Your task to perform on an android device: turn vacation reply on in the gmail app Image 0: 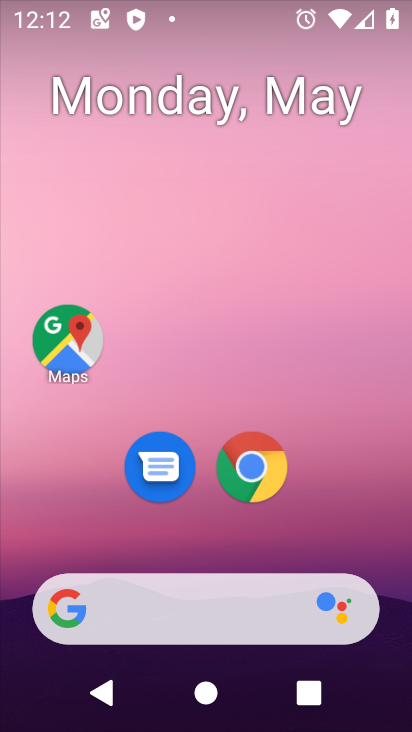
Step 0: drag from (406, 597) to (337, 42)
Your task to perform on an android device: turn vacation reply on in the gmail app Image 1: 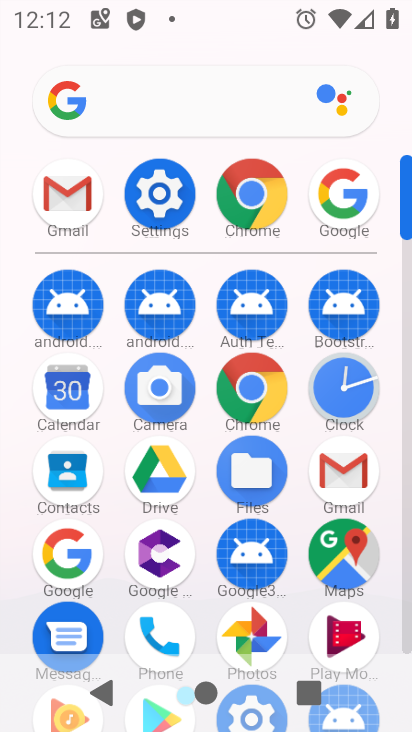
Step 1: click (342, 455)
Your task to perform on an android device: turn vacation reply on in the gmail app Image 2: 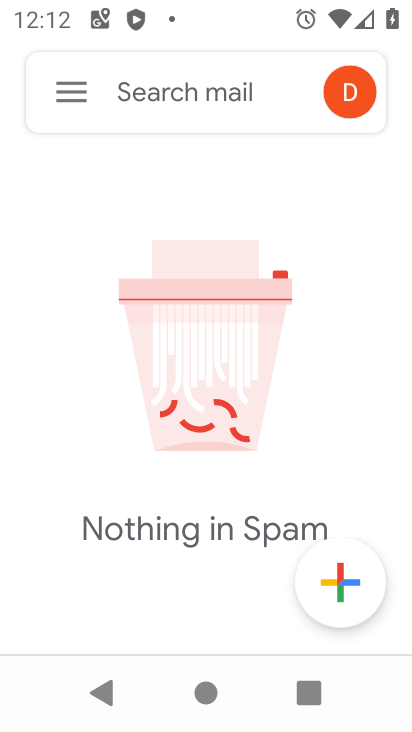
Step 2: click (48, 92)
Your task to perform on an android device: turn vacation reply on in the gmail app Image 3: 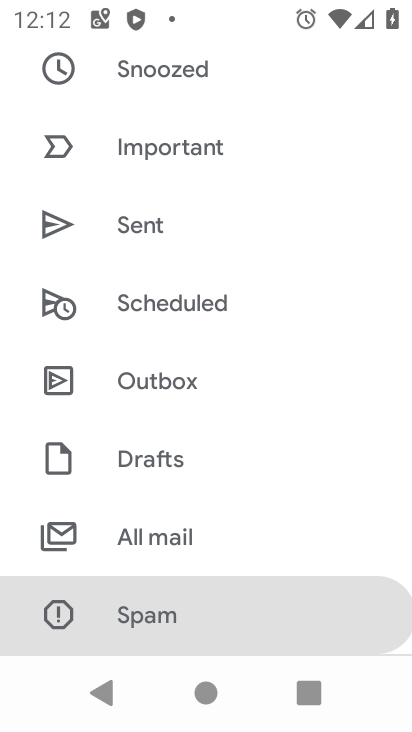
Step 3: drag from (144, 605) to (201, 63)
Your task to perform on an android device: turn vacation reply on in the gmail app Image 4: 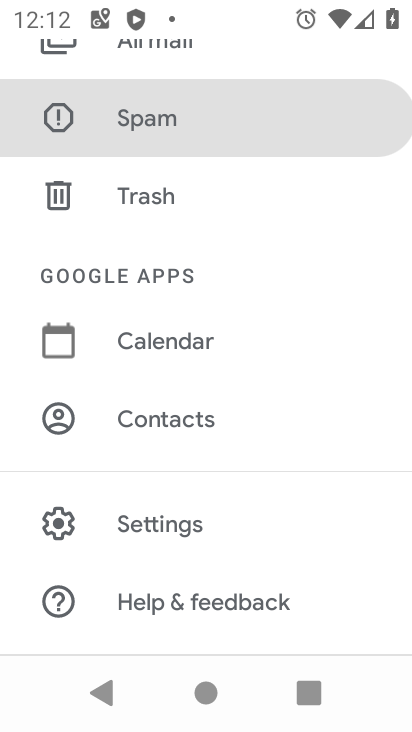
Step 4: click (196, 529)
Your task to perform on an android device: turn vacation reply on in the gmail app Image 5: 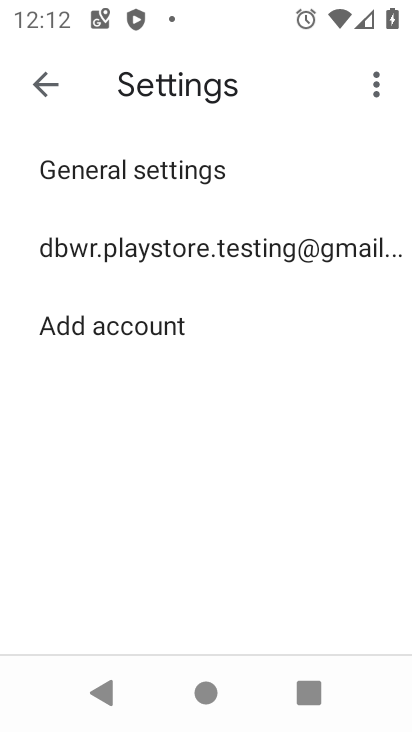
Step 5: click (258, 274)
Your task to perform on an android device: turn vacation reply on in the gmail app Image 6: 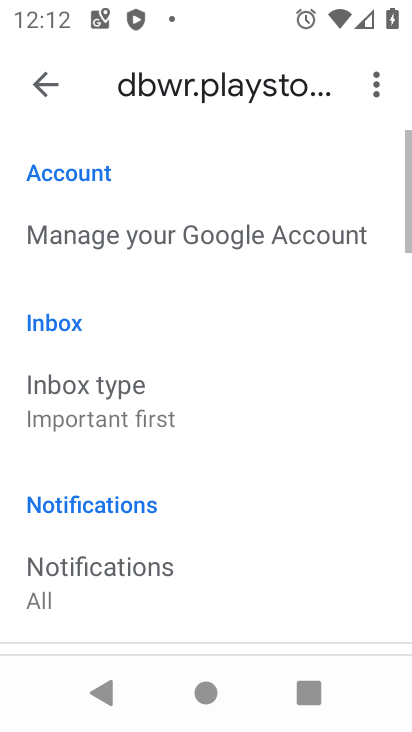
Step 6: task complete